Your task to perform on an android device: Open Chrome and go to the settings page Image 0: 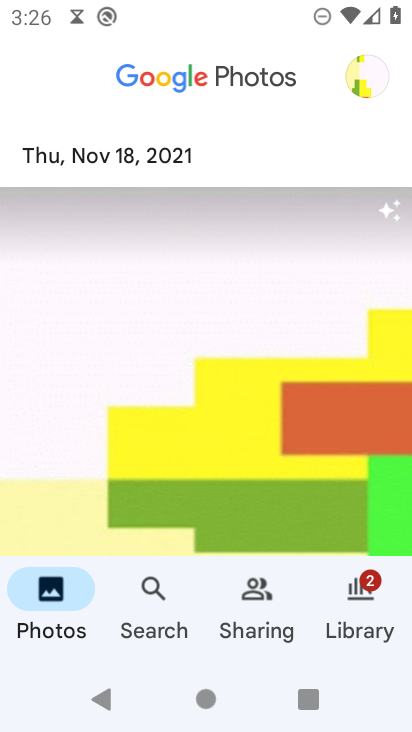
Step 0: press home button
Your task to perform on an android device: Open Chrome and go to the settings page Image 1: 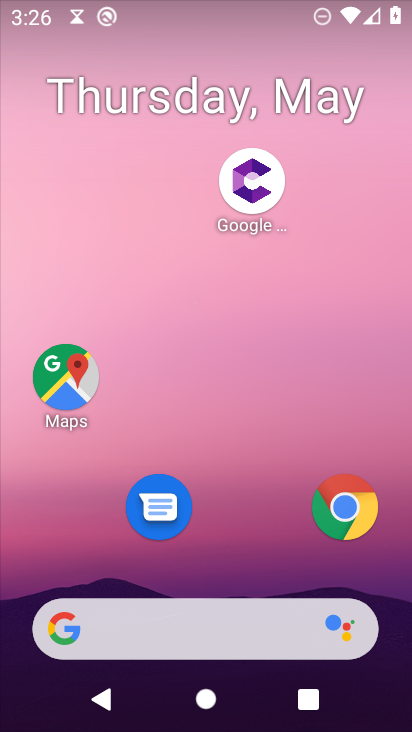
Step 1: click (352, 524)
Your task to perform on an android device: Open Chrome and go to the settings page Image 2: 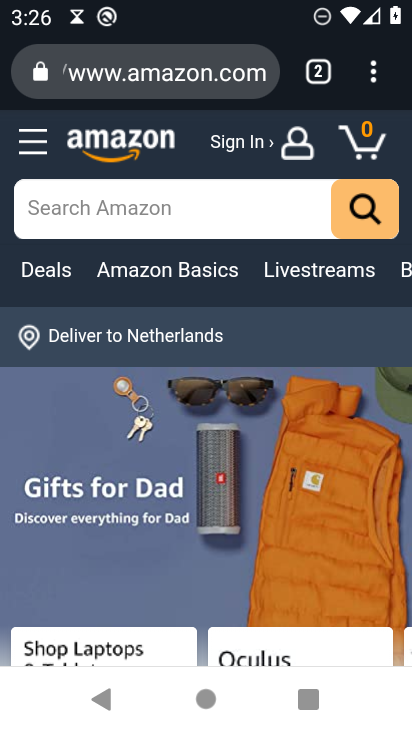
Step 2: task complete